Your task to perform on an android device: open wifi settings Image 0: 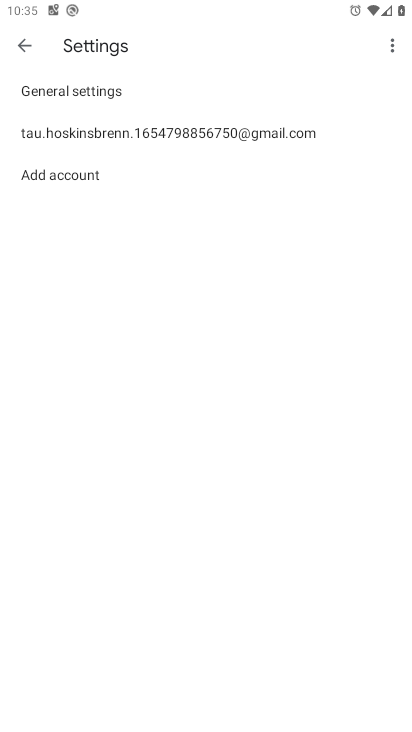
Step 0: press home button
Your task to perform on an android device: open wifi settings Image 1: 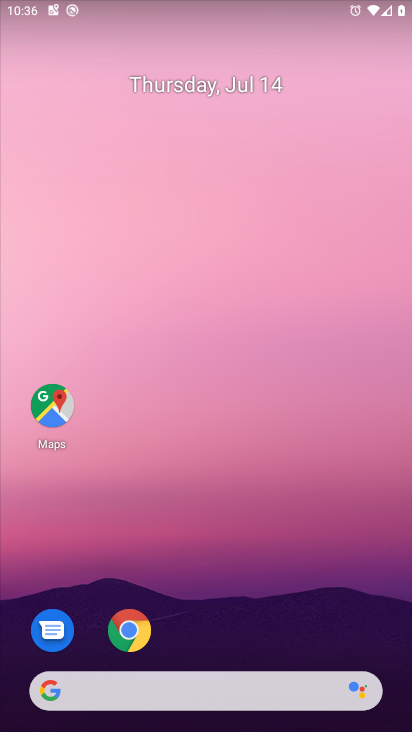
Step 1: drag from (25, 702) to (97, 75)
Your task to perform on an android device: open wifi settings Image 2: 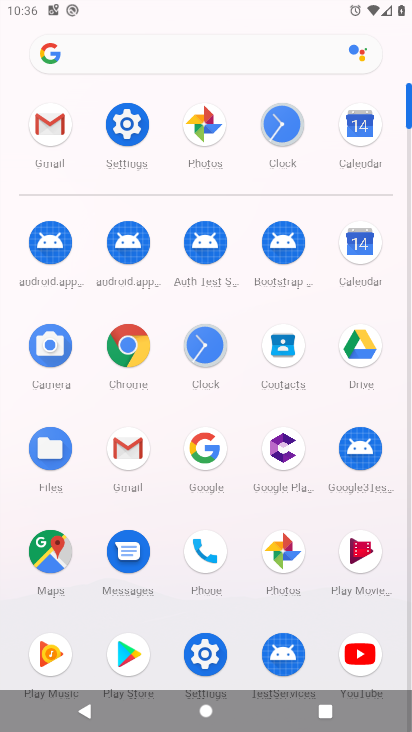
Step 2: click (216, 654)
Your task to perform on an android device: open wifi settings Image 3: 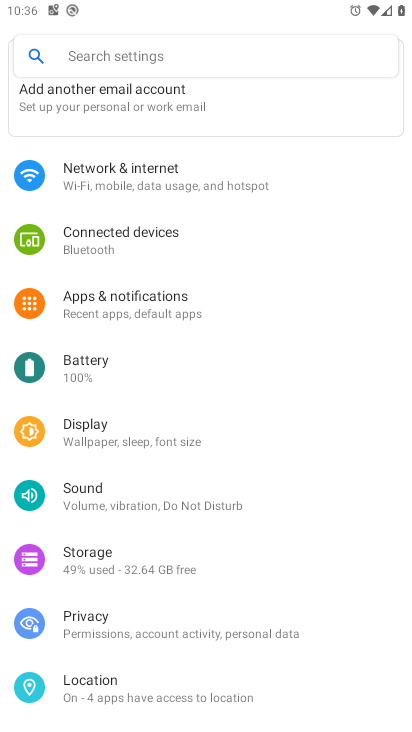
Step 3: click (117, 172)
Your task to perform on an android device: open wifi settings Image 4: 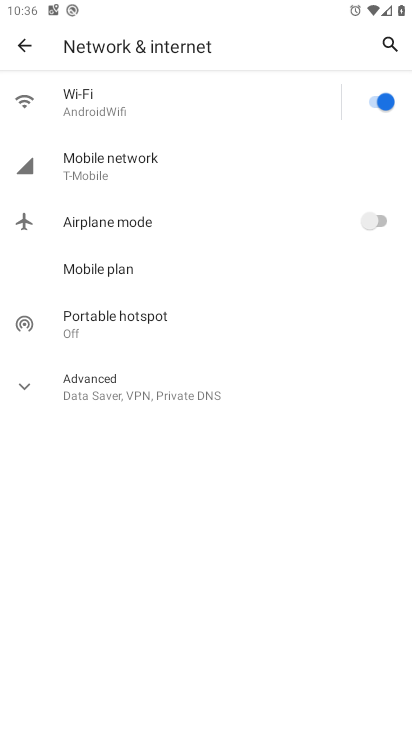
Step 4: click (117, 110)
Your task to perform on an android device: open wifi settings Image 5: 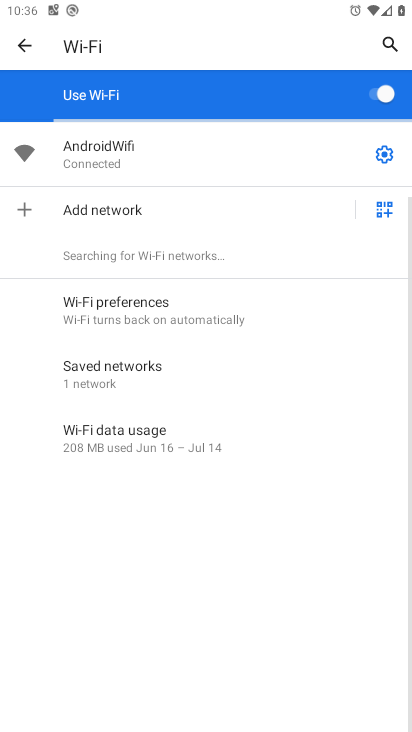
Step 5: task complete